Your task to perform on an android device: Go to Maps Image 0: 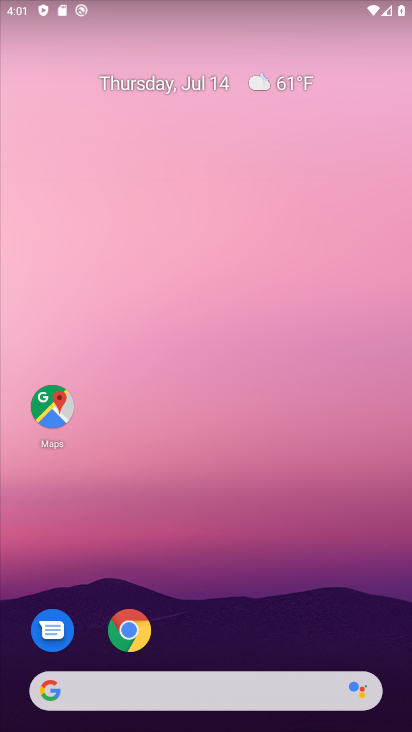
Step 0: click (55, 416)
Your task to perform on an android device: Go to Maps Image 1: 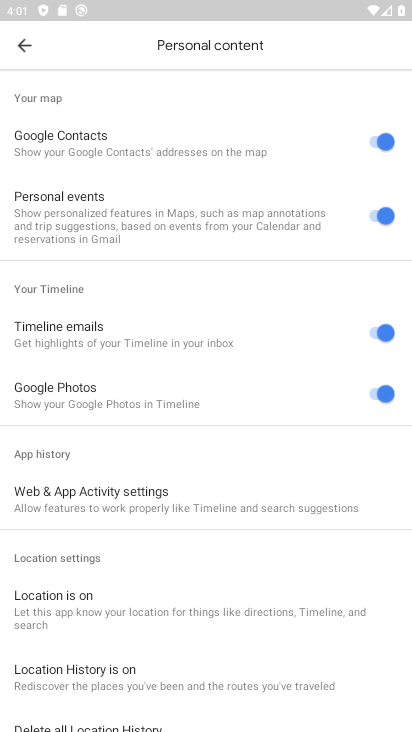
Step 1: click (21, 44)
Your task to perform on an android device: Go to Maps Image 2: 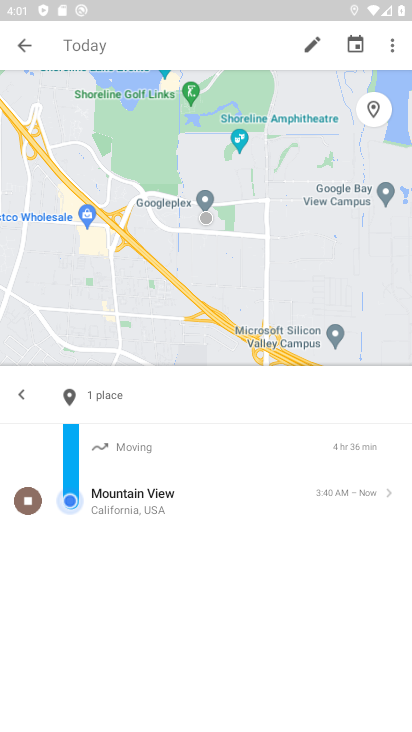
Step 2: task complete